Your task to perform on an android device: Search for "razer thresher" on target, select the first entry, and add it to the cart. Image 0: 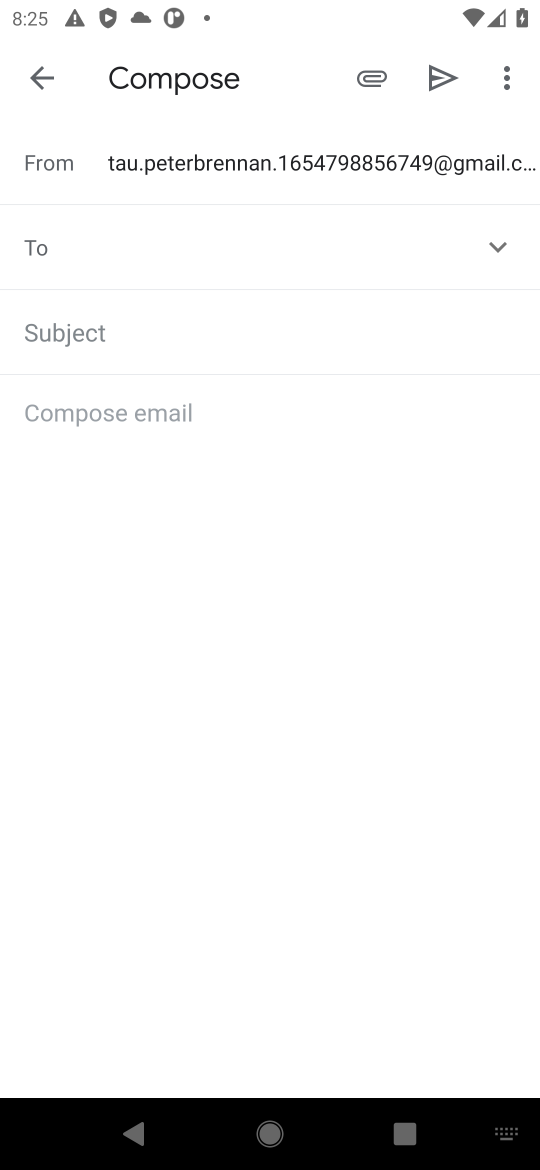
Step 0: task complete